Your task to perform on an android device: change the clock display to show seconds Image 0: 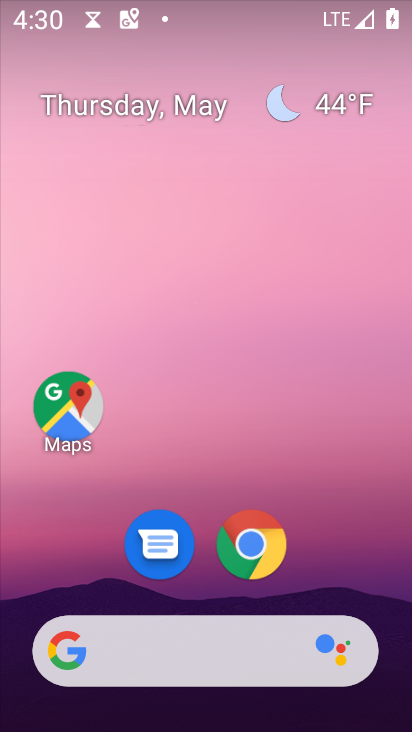
Step 0: drag from (325, 591) to (348, 21)
Your task to perform on an android device: change the clock display to show seconds Image 1: 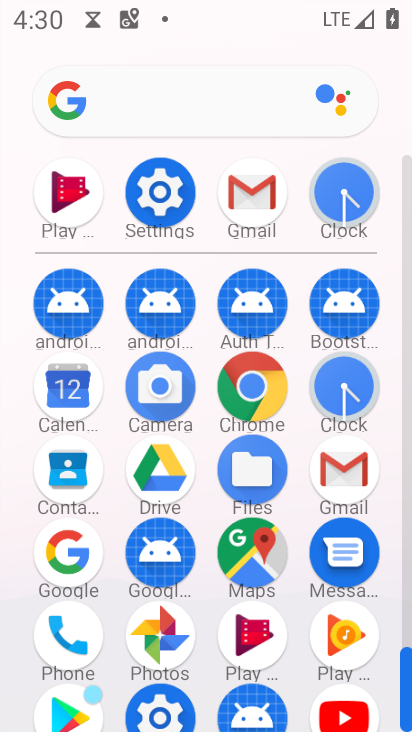
Step 1: click (354, 386)
Your task to perform on an android device: change the clock display to show seconds Image 2: 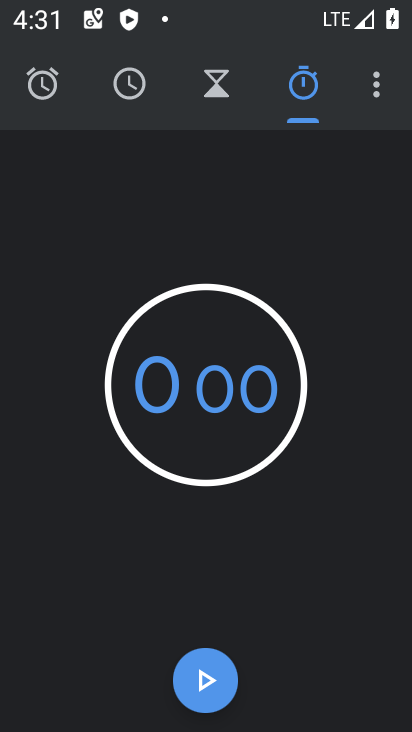
Step 2: click (372, 99)
Your task to perform on an android device: change the clock display to show seconds Image 3: 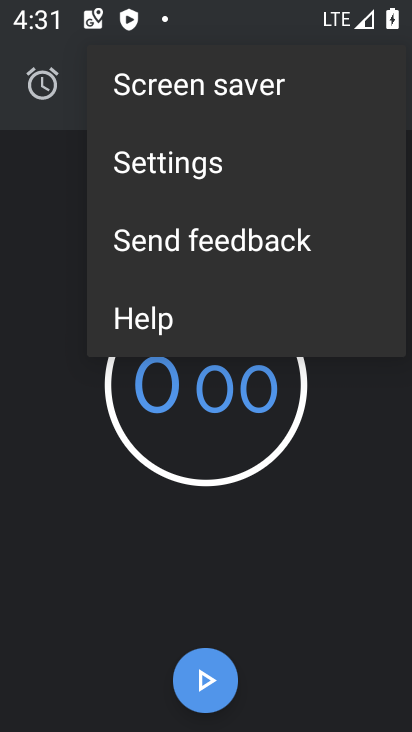
Step 3: click (312, 172)
Your task to perform on an android device: change the clock display to show seconds Image 4: 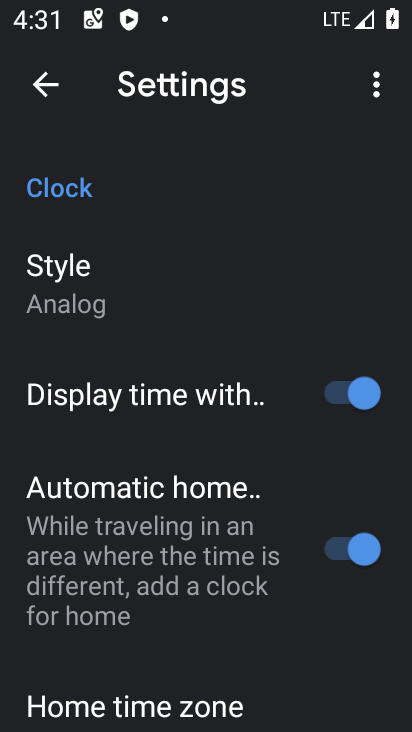
Step 4: task complete